Your task to perform on an android device: empty trash in google photos Image 0: 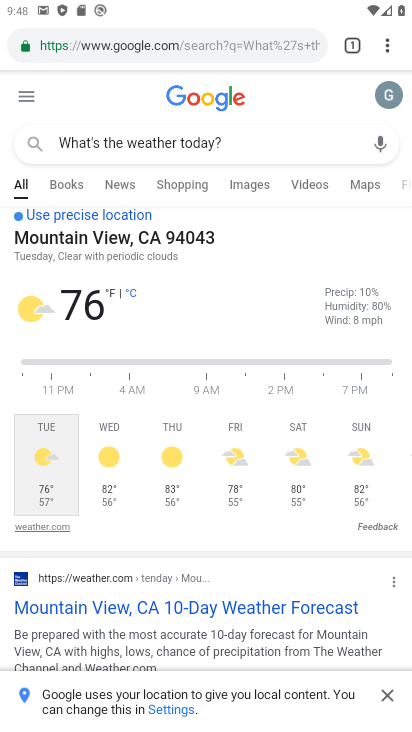
Step 0: press home button
Your task to perform on an android device: empty trash in google photos Image 1: 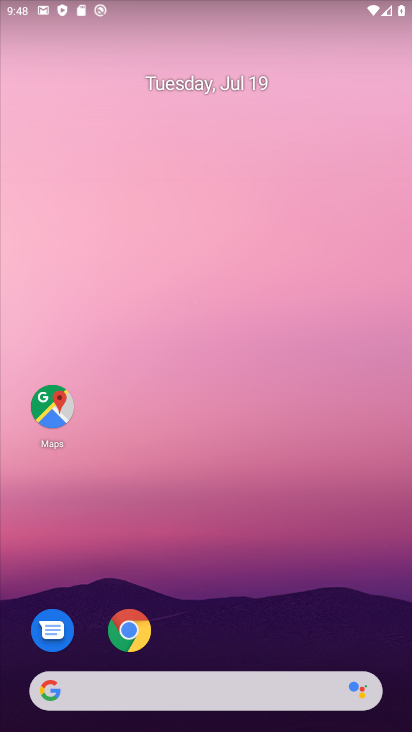
Step 1: drag from (247, 640) to (273, 89)
Your task to perform on an android device: empty trash in google photos Image 2: 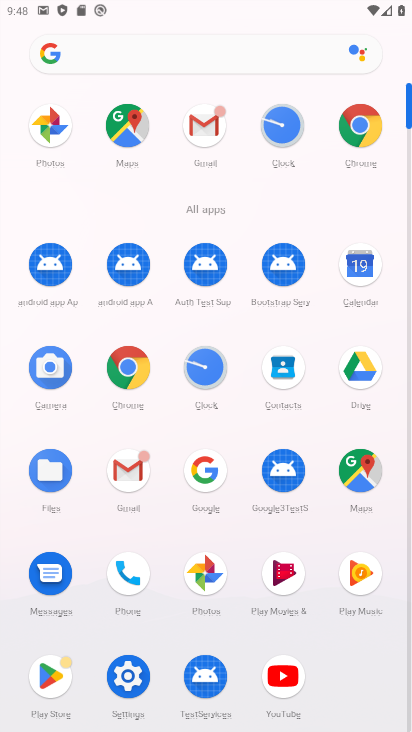
Step 2: click (47, 127)
Your task to perform on an android device: empty trash in google photos Image 3: 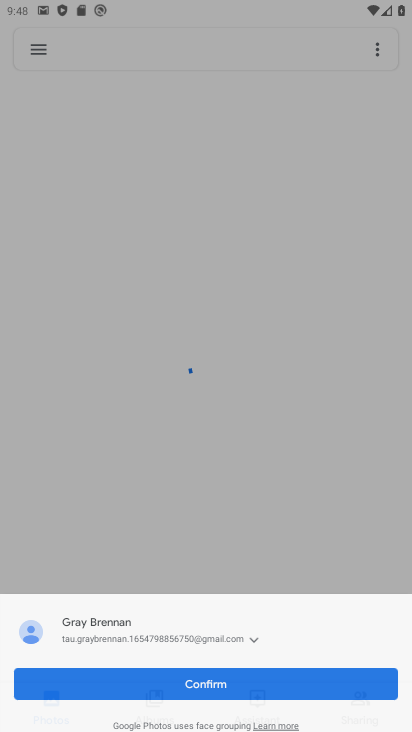
Step 3: click (39, 49)
Your task to perform on an android device: empty trash in google photos Image 4: 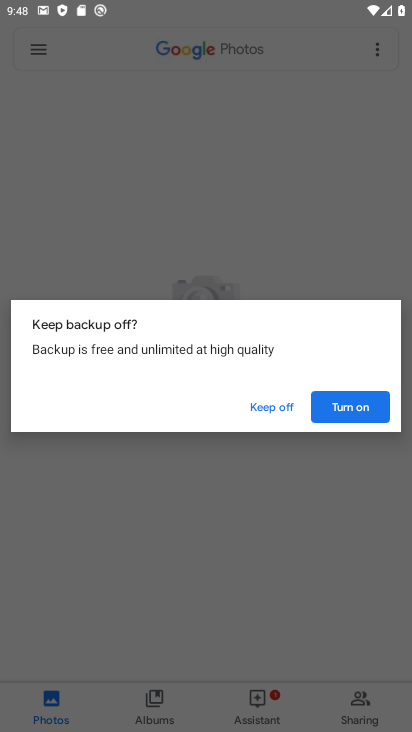
Step 4: click (340, 416)
Your task to perform on an android device: empty trash in google photos Image 5: 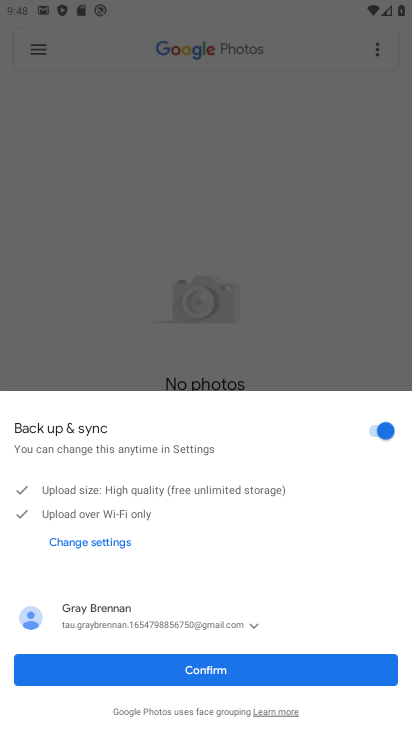
Step 5: click (305, 666)
Your task to perform on an android device: empty trash in google photos Image 6: 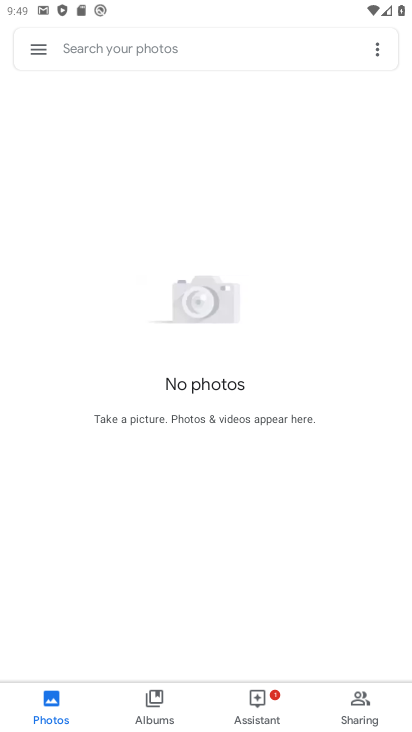
Step 6: click (33, 62)
Your task to perform on an android device: empty trash in google photos Image 7: 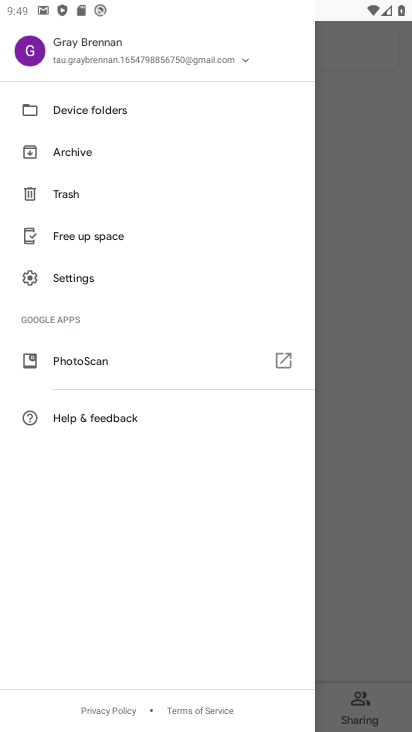
Step 7: click (96, 206)
Your task to perform on an android device: empty trash in google photos Image 8: 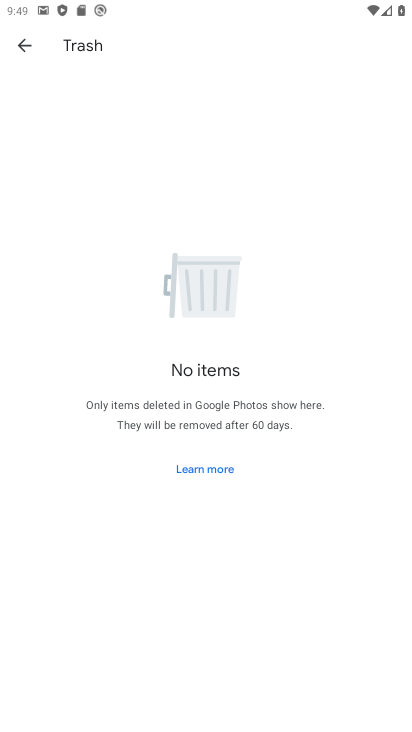
Step 8: task complete